Your task to perform on an android device: Is it going to rain tomorrow? Image 0: 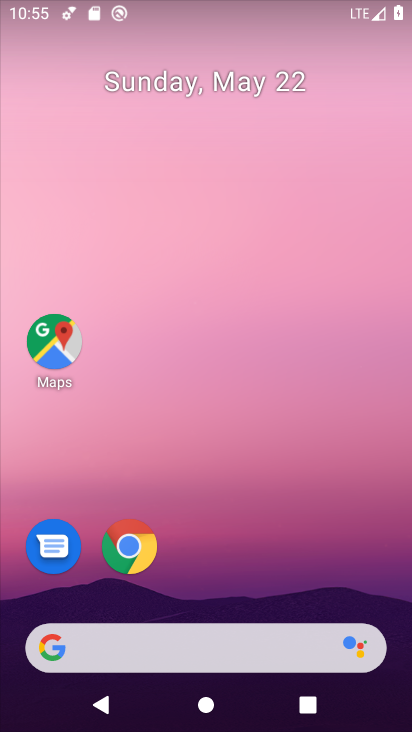
Step 0: drag from (242, 646) to (266, 49)
Your task to perform on an android device: Is it going to rain tomorrow? Image 1: 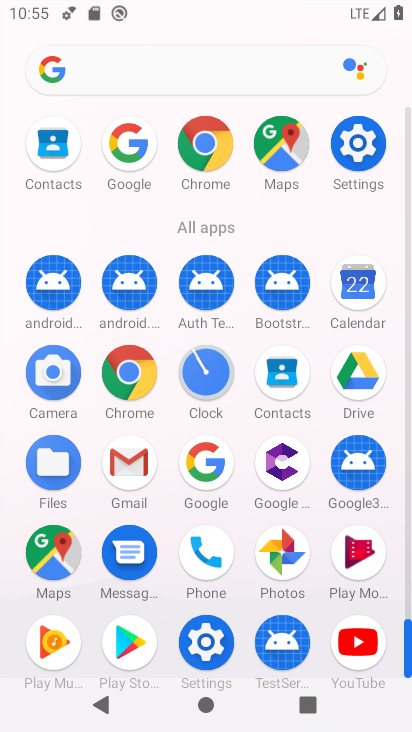
Step 1: click (207, 472)
Your task to perform on an android device: Is it going to rain tomorrow? Image 2: 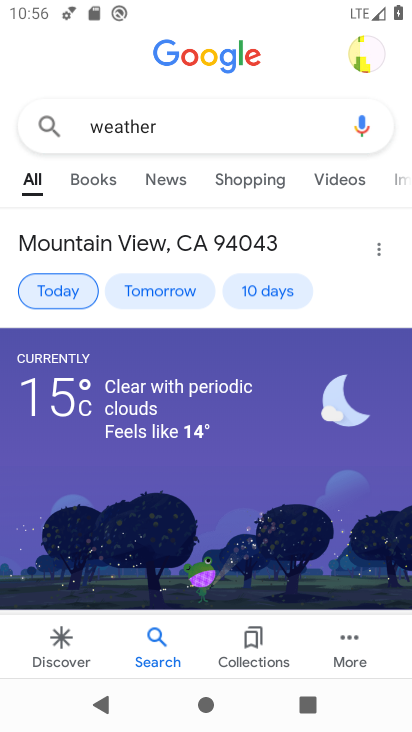
Step 2: click (160, 293)
Your task to perform on an android device: Is it going to rain tomorrow? Image 3: 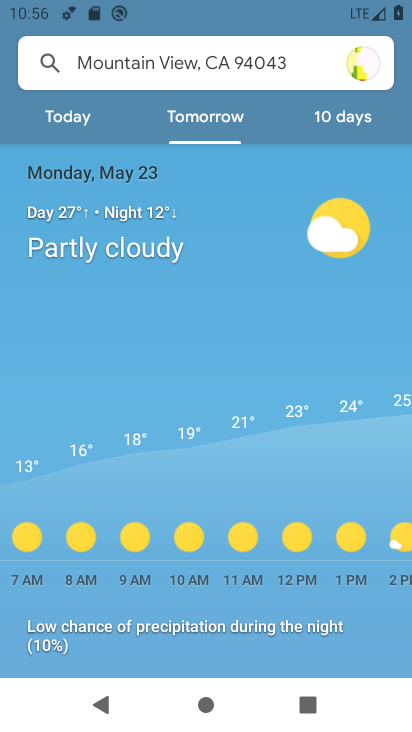
Step 3: task complete